Your task to perform on an android device: Do I have any events tomorrow? Image 0: 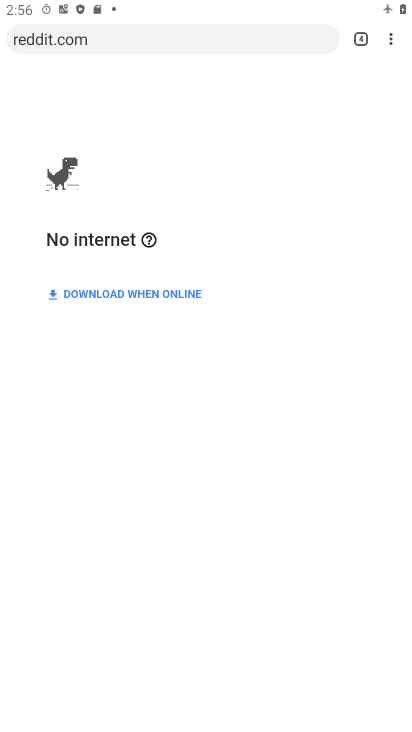
Step 0: press home button
Your task to perform on an android device: Do I have any events tomorrow? Image 1: 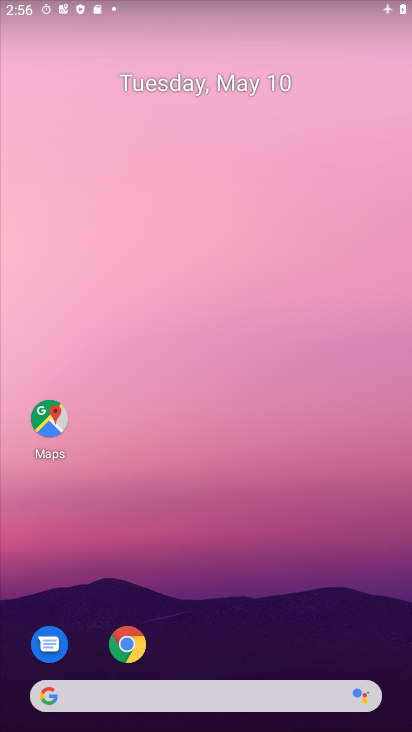
Step 1: drag from (205, 535) to (211, 155)
Your task to perform on an android device: Do I have any events tomorrow? Image 2: 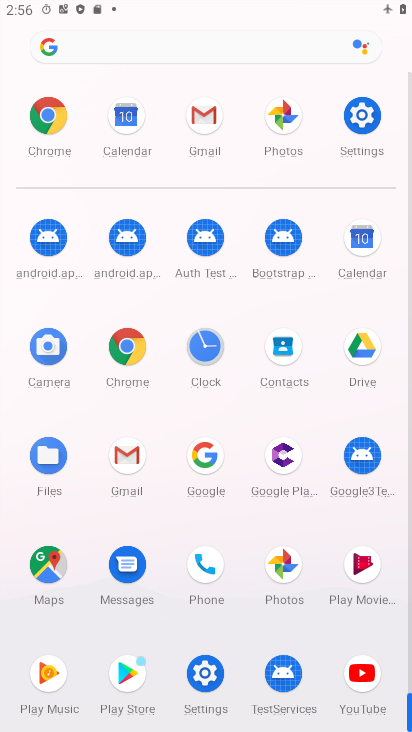
Step 2: click (350, 258)
Your task to perform on an android device: Do I have any events tomorrow? Image 3: 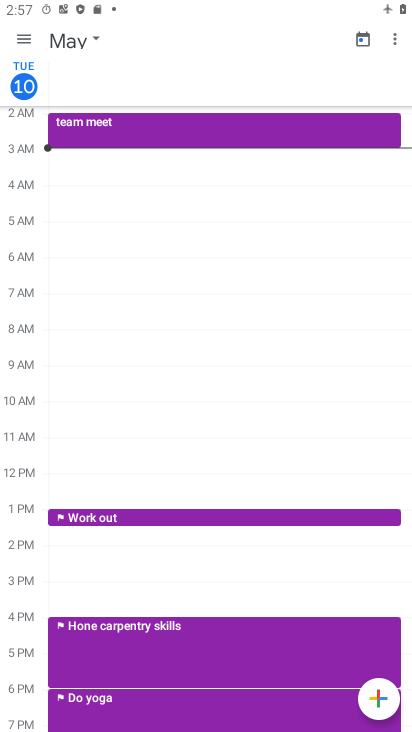
Step 3: click (69, 48)
Your task to perform on an android device: Do I have any events tomorrow? Image 4: 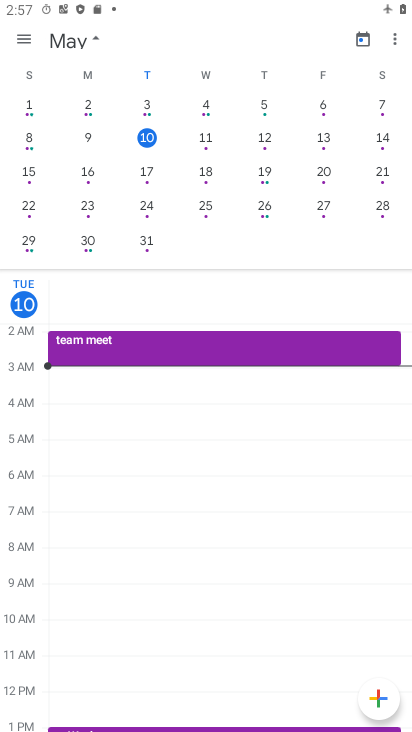
Step 4: click (203, 141)
Your task to perform on an android device: Do I have any events tomorrow? Image 5: 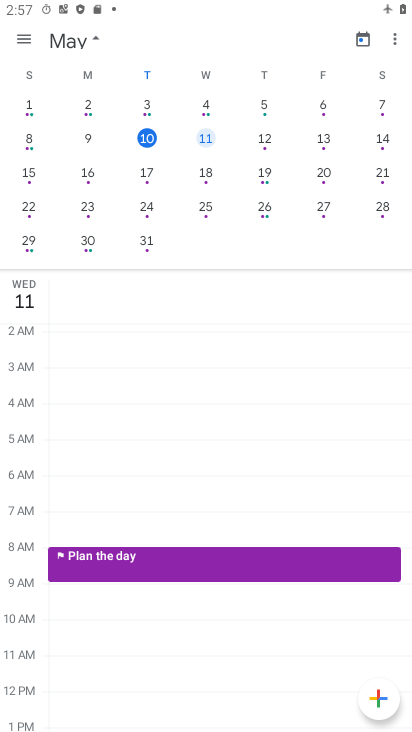
Step 5: click (209, 142)
Your task to perform on an android device: Do I have any events tomorrow? Image 6: 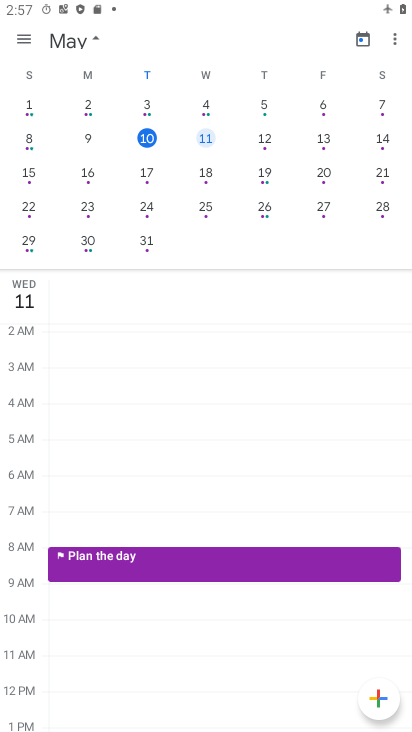
Step 6: task complete